Your task to perform on an android device: View the shopping cart on newegg.com. Add "dell xps" to the cart on newegg.com, then select checkout. Image 0: 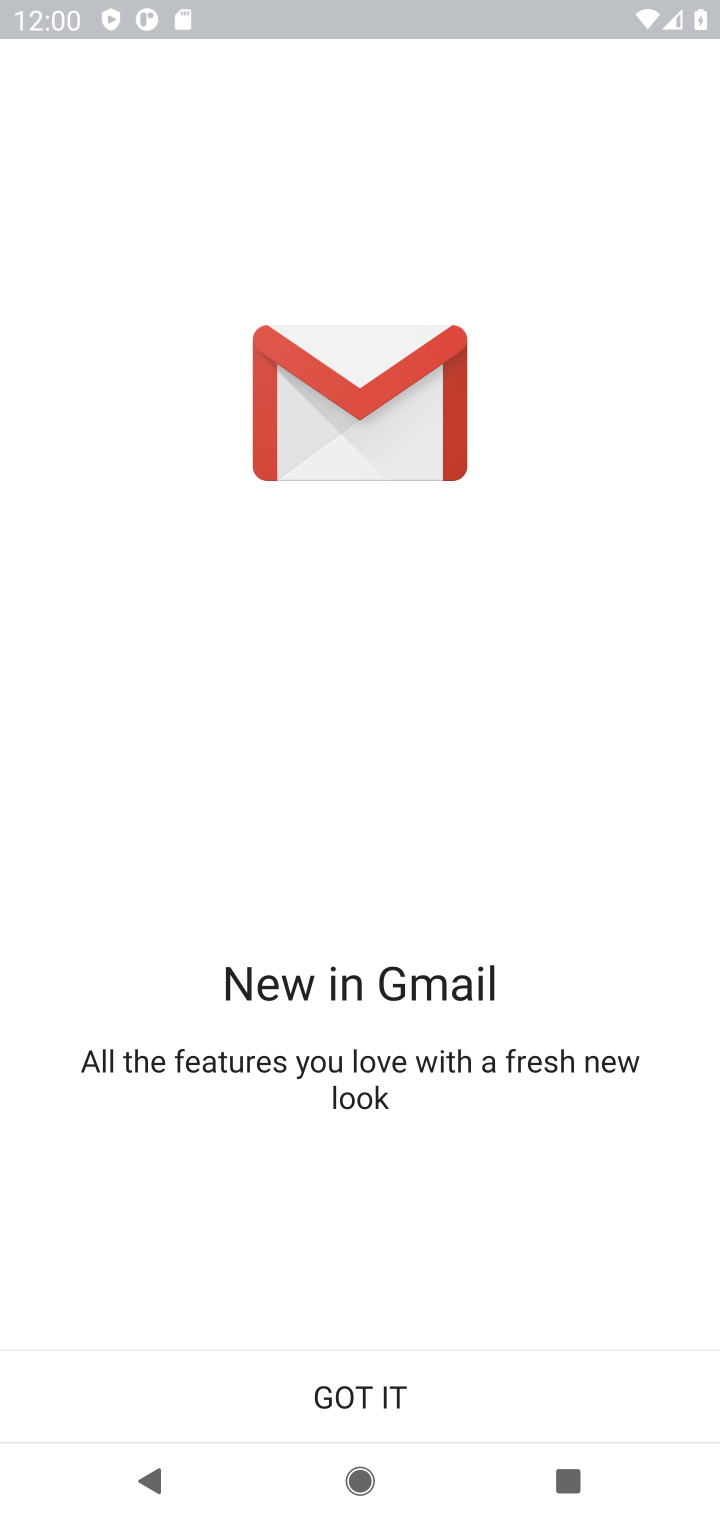
Step 0: press home button
Your task to perform on an android device: View the shopping cart on newegg.com. Add "dell xps" to the cart on newegg.com, then select checkout. Image 1: 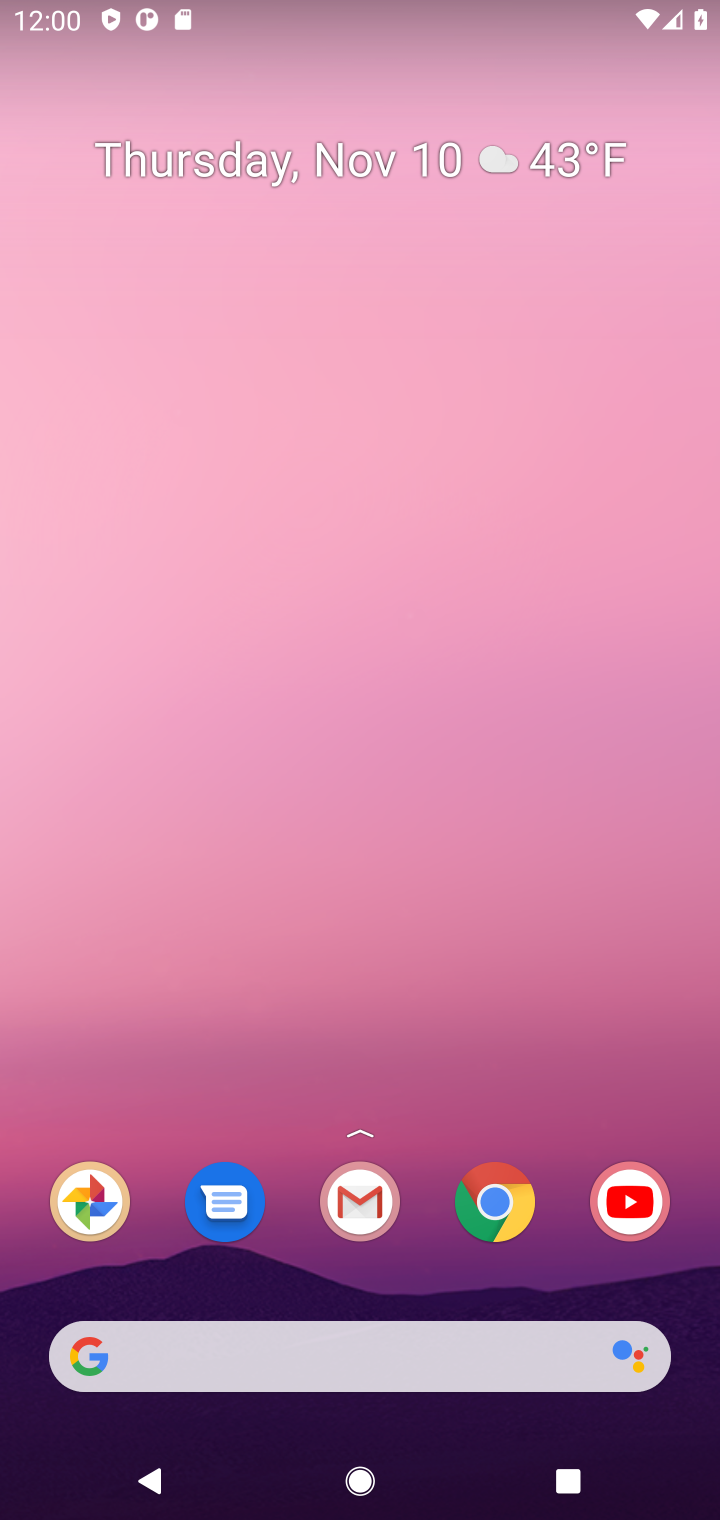
Step 1: click (493, 1204)
Your task to perform on an android device: View the shopping cart on newegg.com. Add "dell xps" to the cart on newegg.com, then select checkout. Image 2: 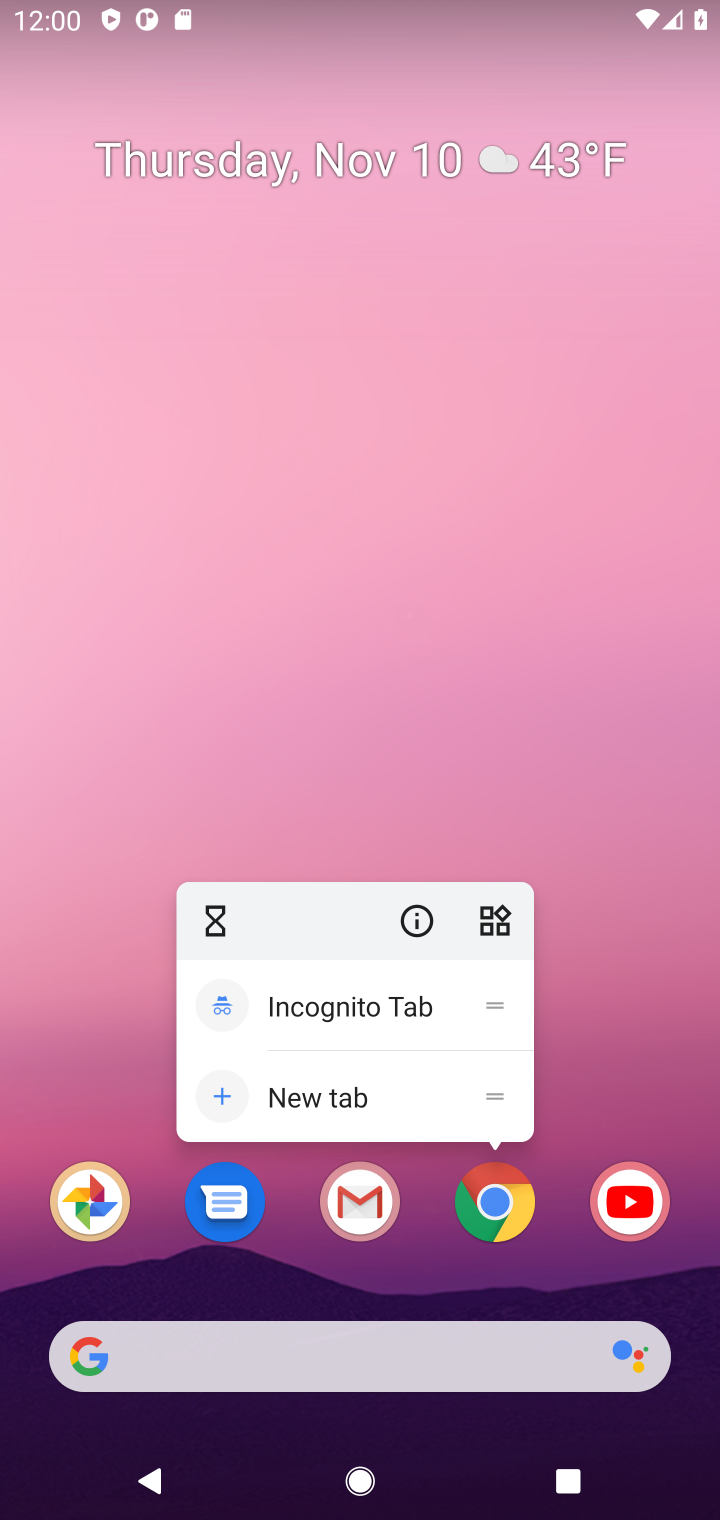
Step 2: click (493, 1204)
Your task to perform on an android device: View the shopping cart on newegg.com. Add "dell xps" to the cart on newegg.com, then select checkout. Image 3: 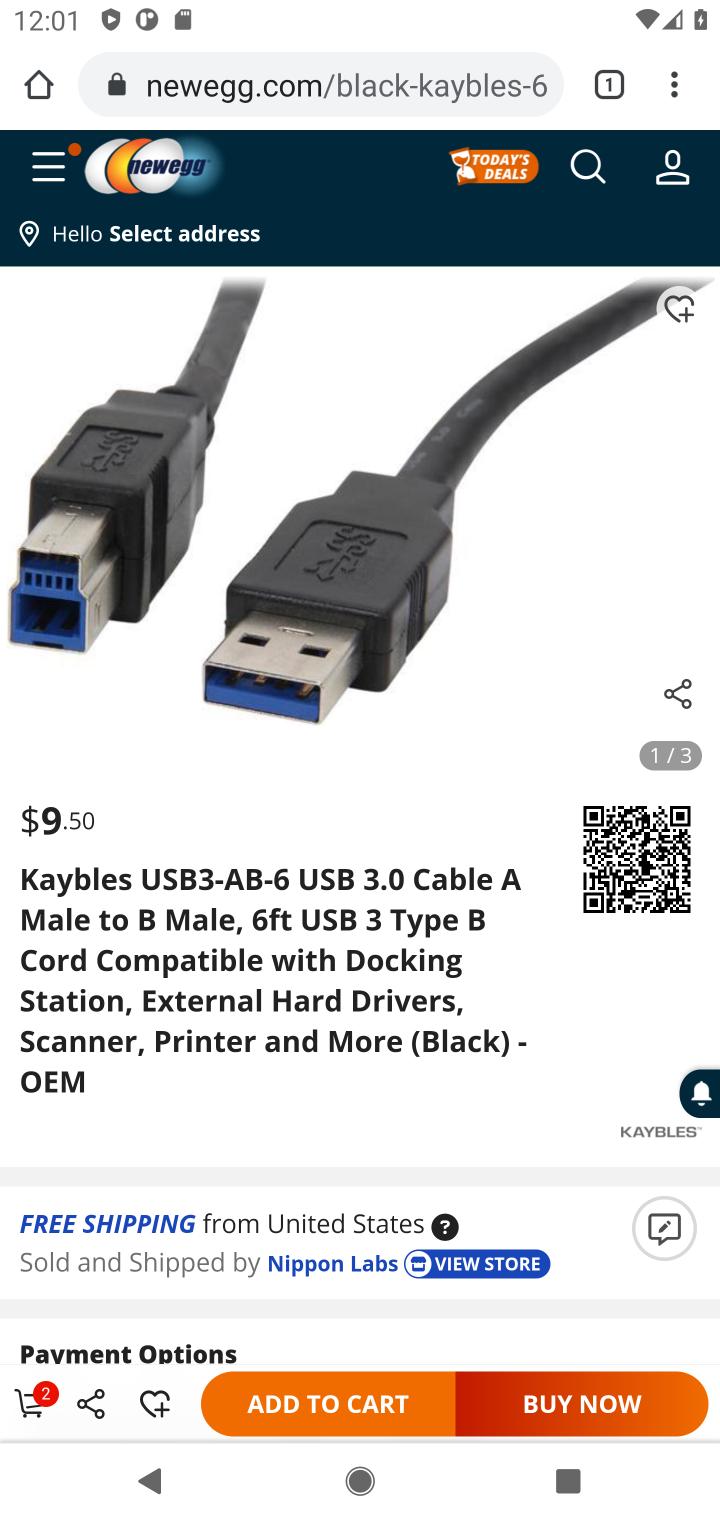
Step 3: click (598, 172)
Your task to perform on an android device: View the shopping cart on newegg.com. Add "dell xps" to the cart on newegg.com, then select checkout. Image 4: 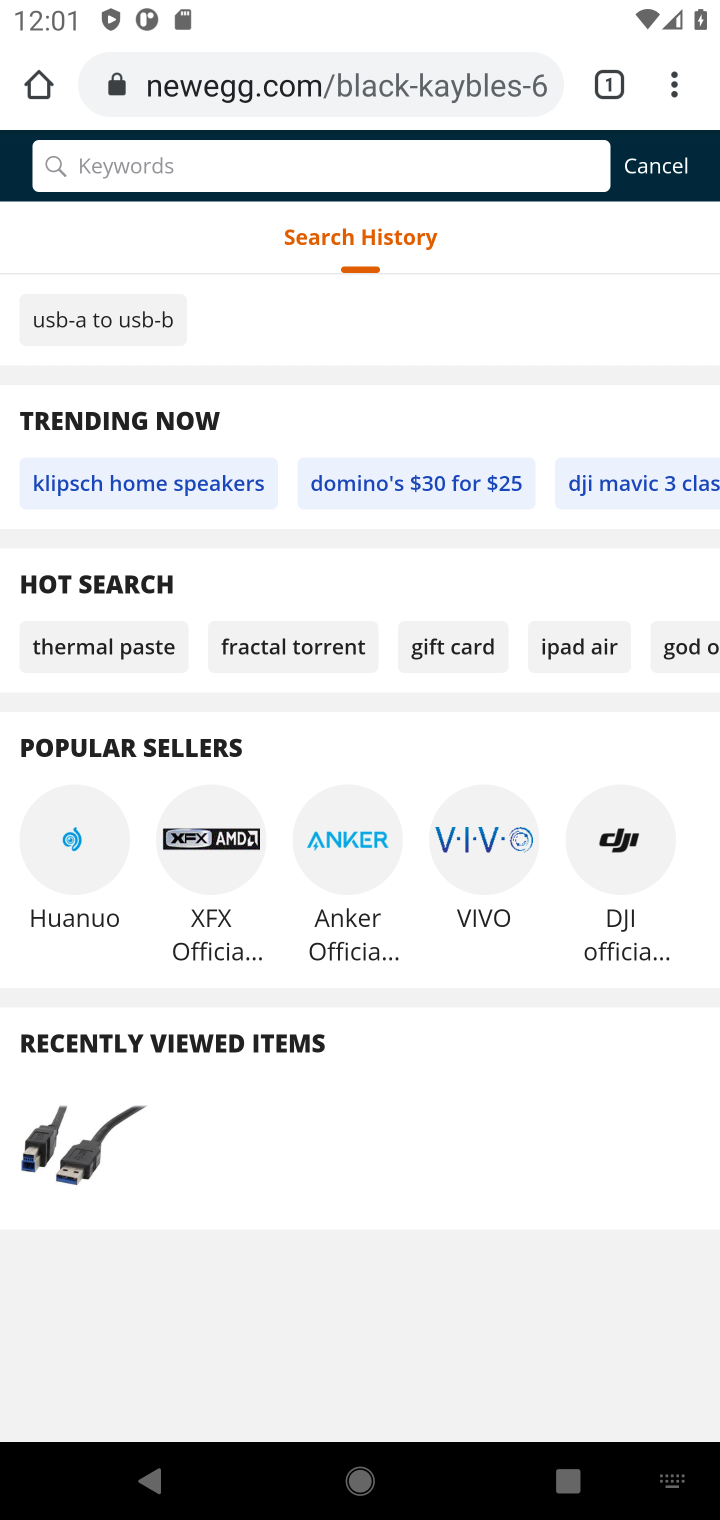
Step 4: type "dell xps"
Your task to perform on an android device: View the shopping cart on newegg.com. Add "dell xps" to the cart on newegg.com, then select checkout. Image 5: 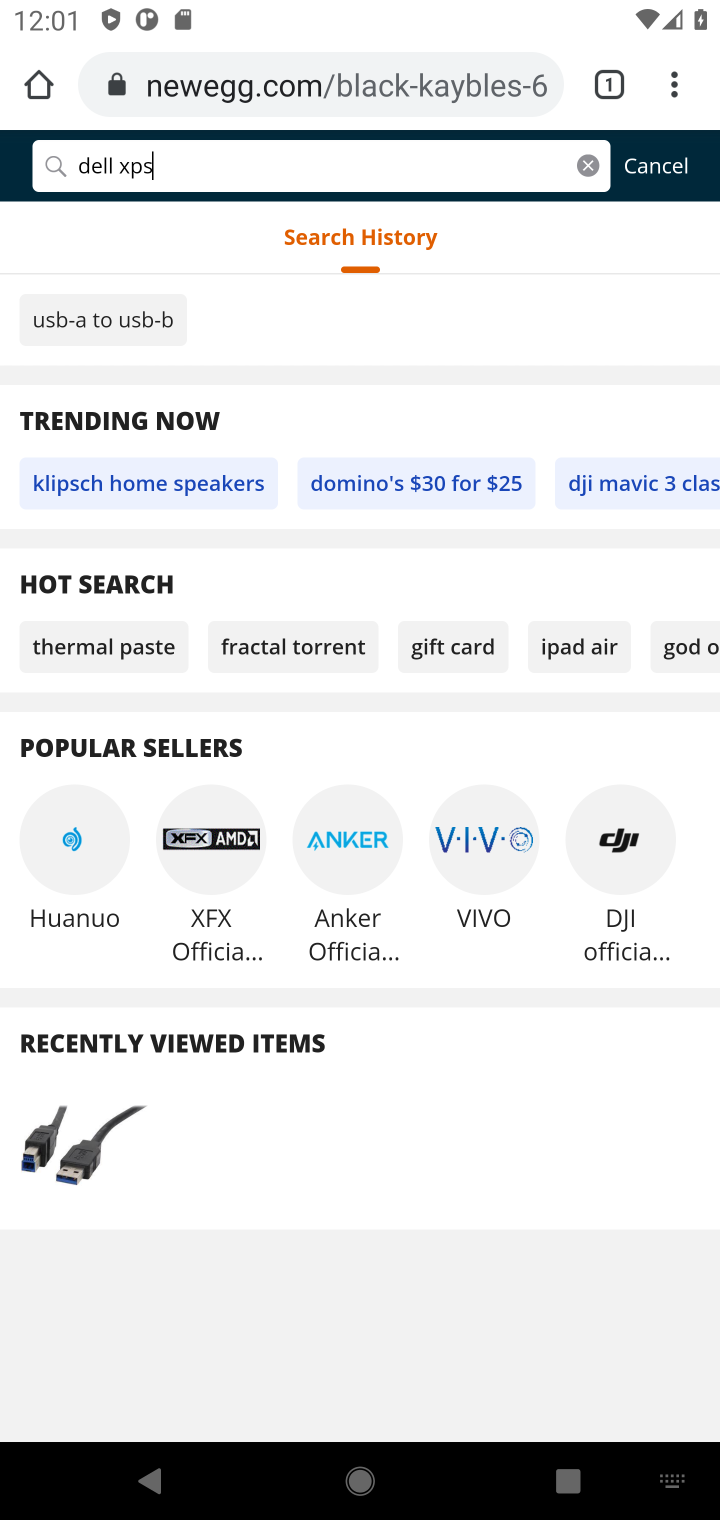
Step 5: press enter
Your task to perform on an android device: View the shopping cart on newegg.com. Add "dell xps" to the cart on newegg.com, then select checkout. Image 6: 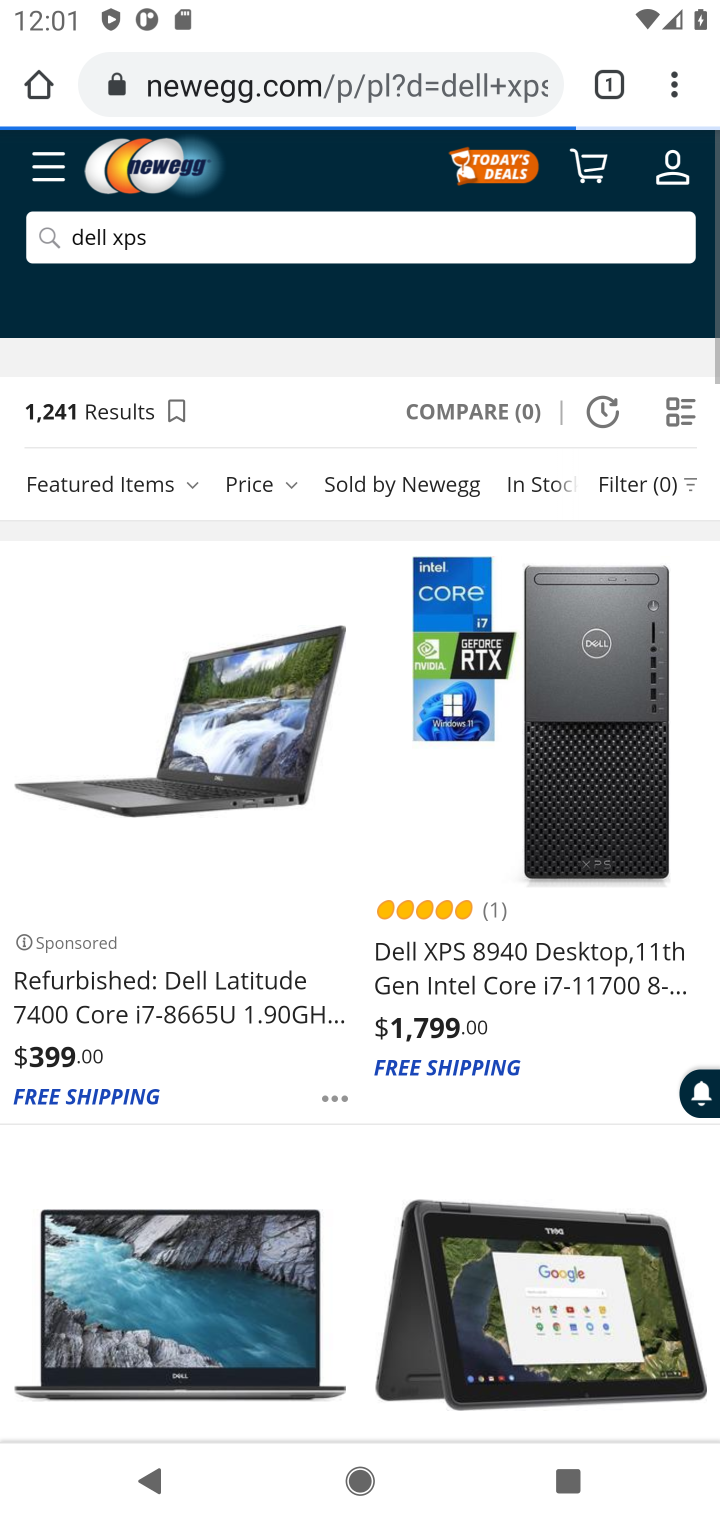
Step 6: click (111, 469)
Your task to perform on an android device: View the shopping cart on newegg.com. Add "dell xps" to the cart on newegg.com, then select checkout. Image 7: 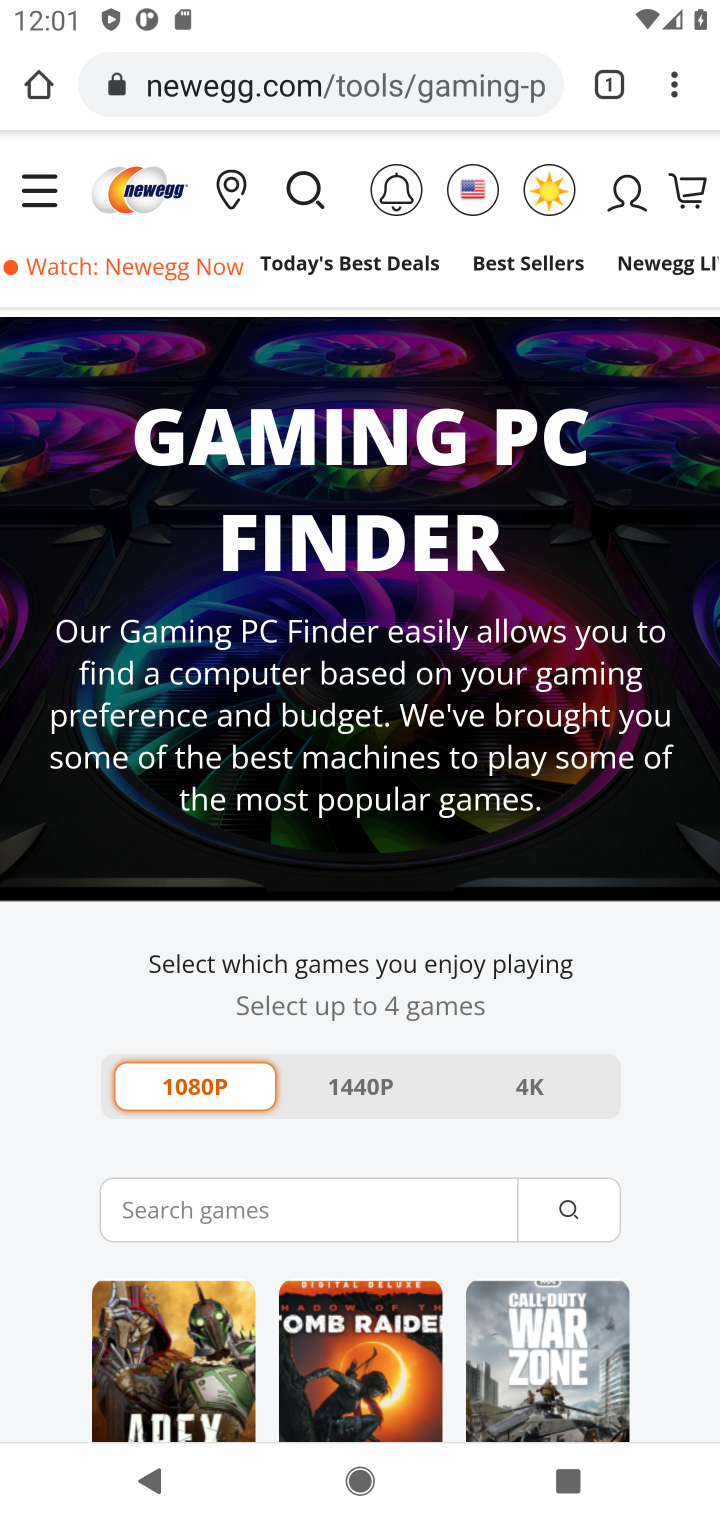
Step 7: click (304, 177)
Your task to perform on an android device: View the shopping cart on newegg.com. Add "dell xps" to the cart on newegg.com, then select checkout. Image 8: 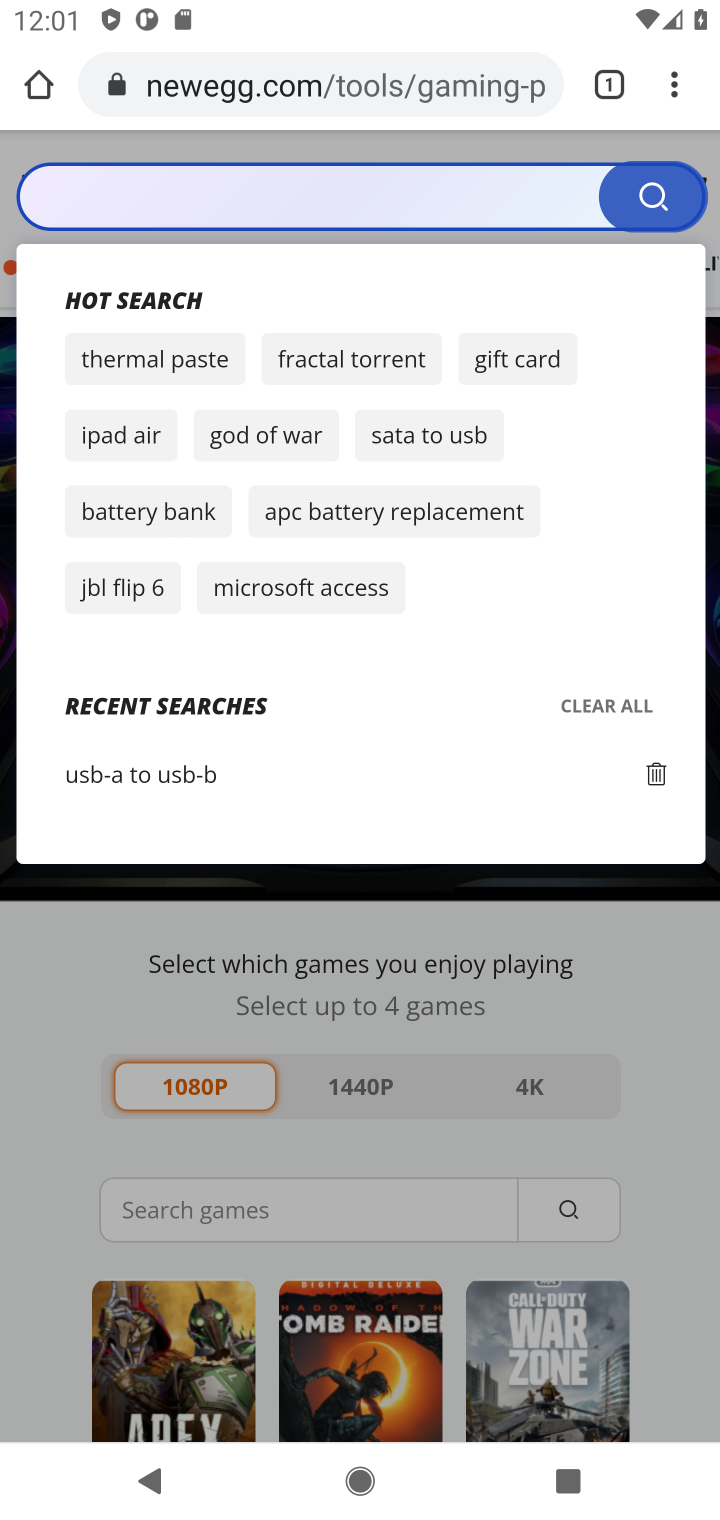
Step 8: click (242, 183)
Your task to perform on an android device: View the shopping cart on newegg.com. Add "dell xps" to the cart on newegg.com, then select checkout. Image 9: 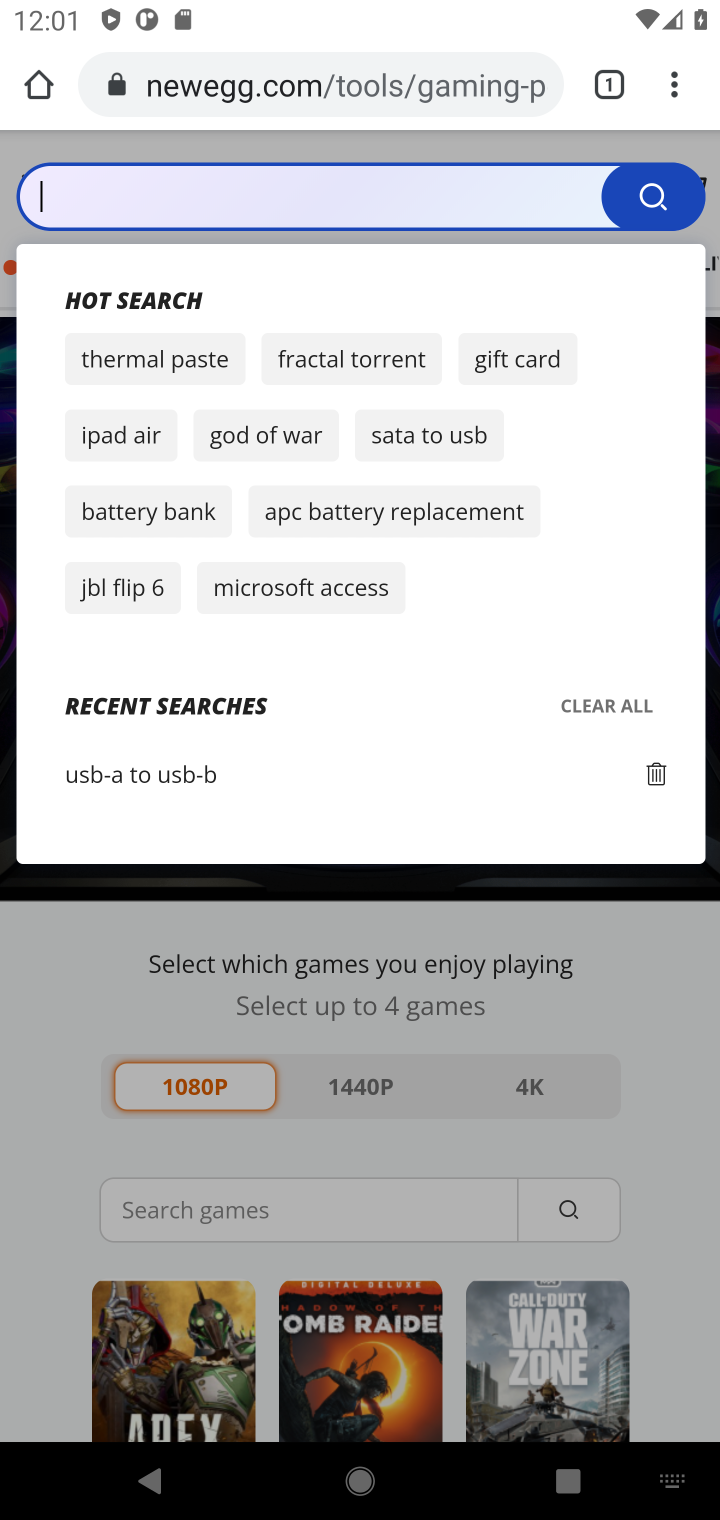
Step 9: type "dell xps"
Your task to perform on an android device: View the shopping cart on newegg.com. Add "dell xps" to the cart on newegg.com, then select checkout. Image 10: 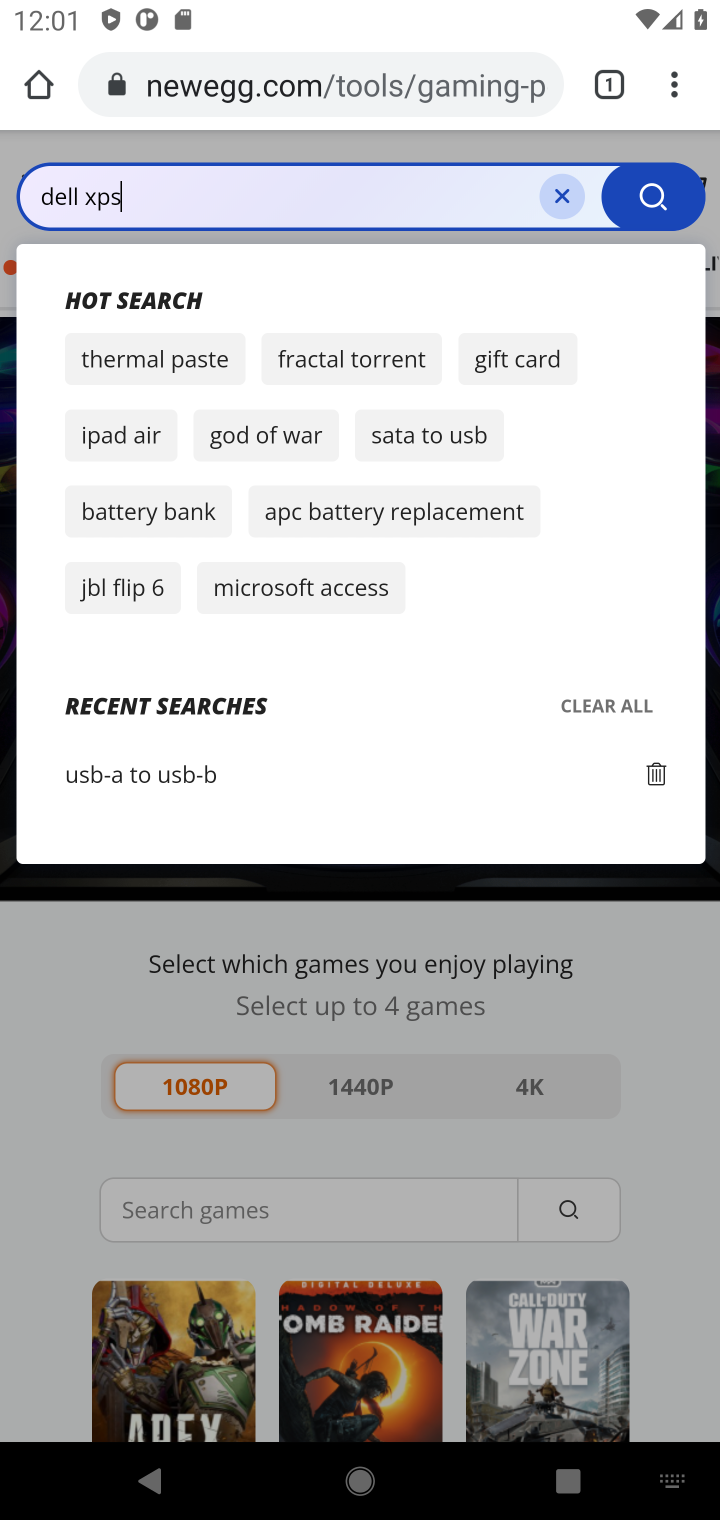
Step 10: press enter
Your task to perform on an android device: View the shopping cart on newegg.com. Add "dell xps" to the cart on newegg.com, then select checkout. Image 11: 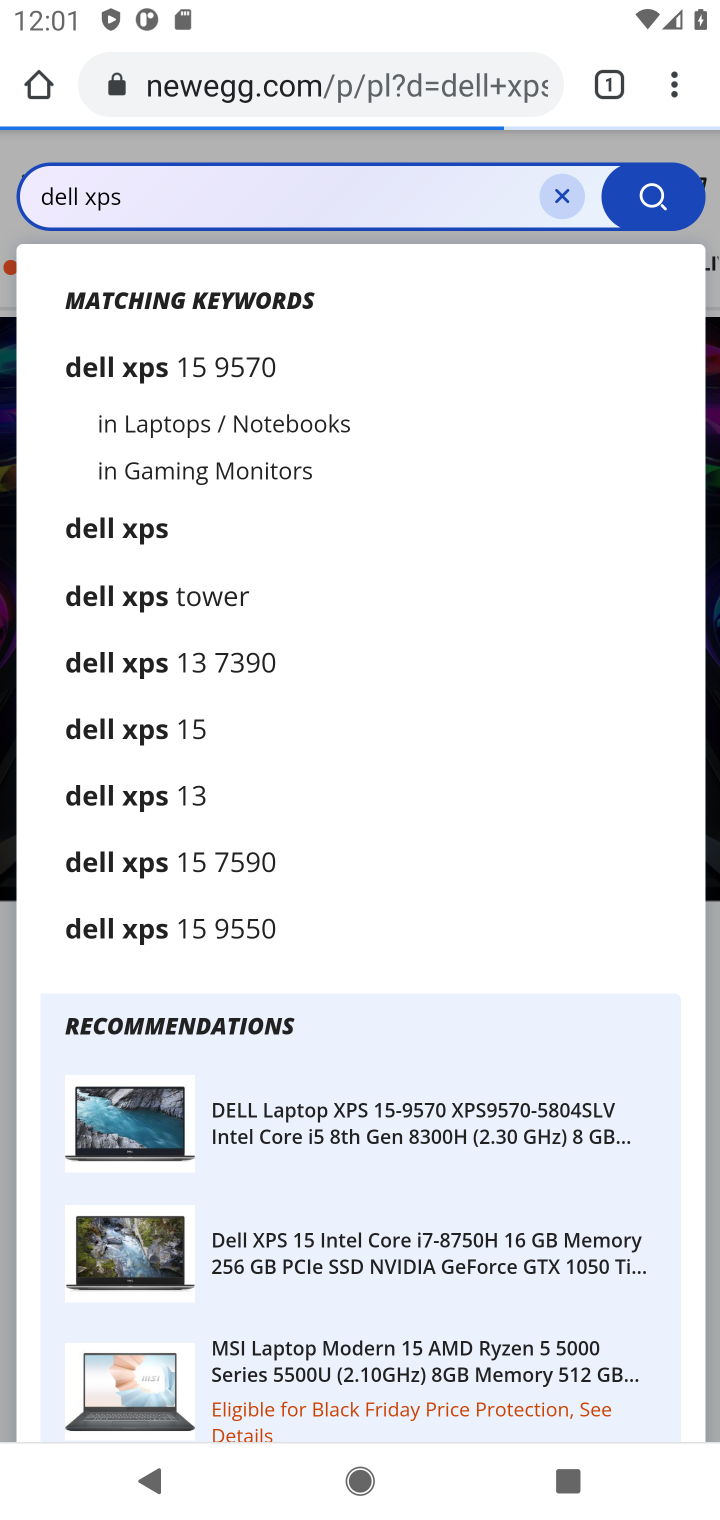
Step 11: click (148, 525)
Your task to perform on an android device: View the shopping cart on newegg.com. Add "dell xps" to the cart on newegg.com, then select checkout. Image 12: 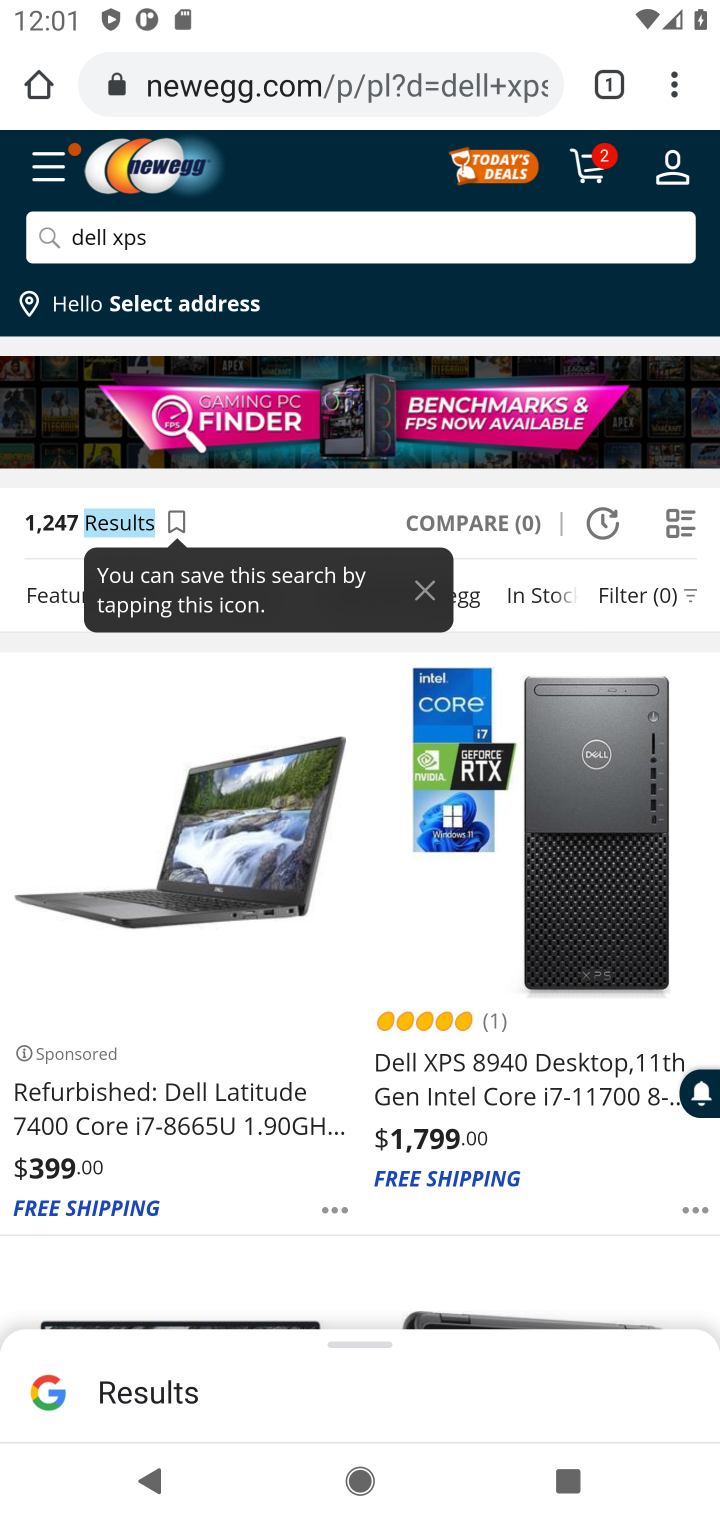
Step 12: drag from (559, 797) to (606, 533)
Your task to perform on an android device: View the shopping cart on newegg.com. Add "dell xps" to the cart on newegg.com, then select checkout. Image 13: 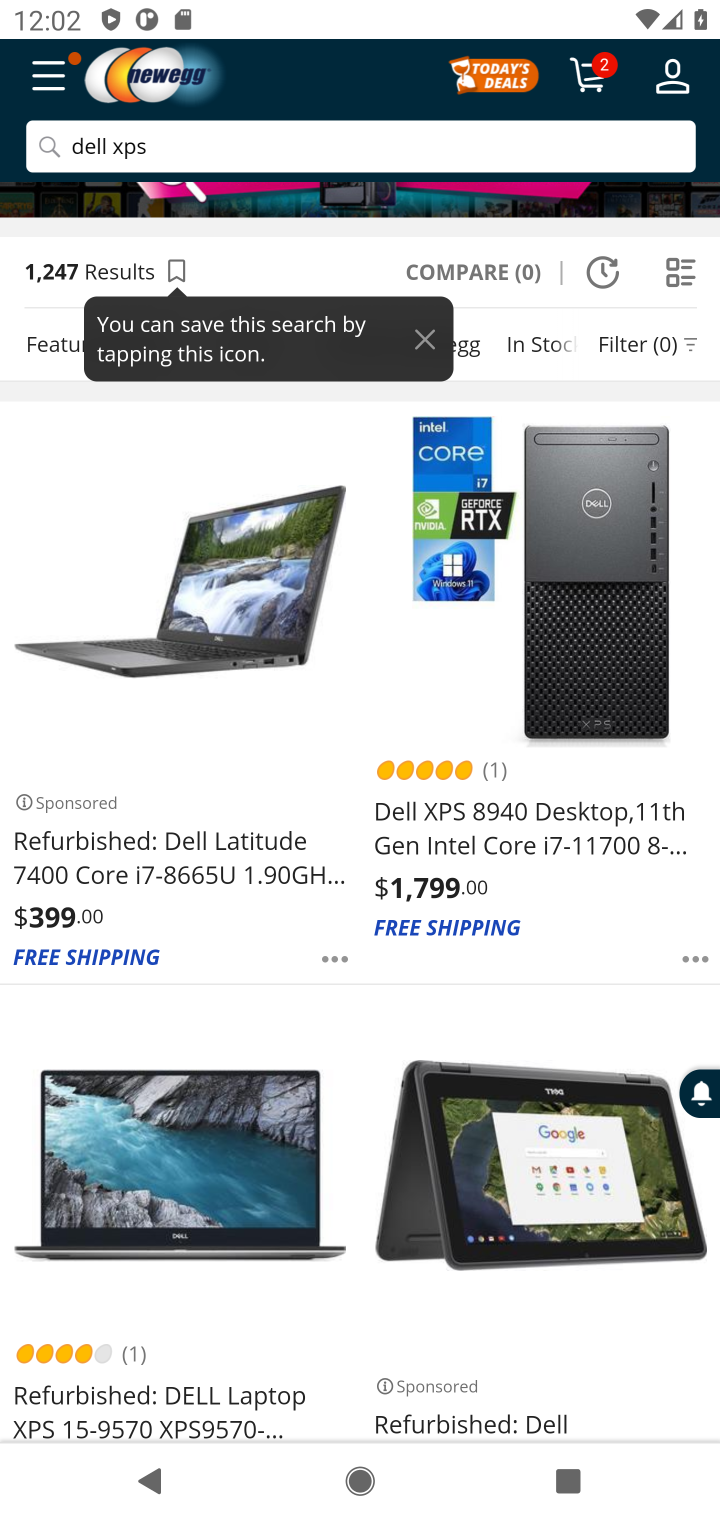
Step 13: drag from (569, 1122) to (561, 547)
Your task to perform on an android device: View the shopping cart on newegg.com. Add "dell xps" to the cart on newegg.com, then select checkout. Image 14: 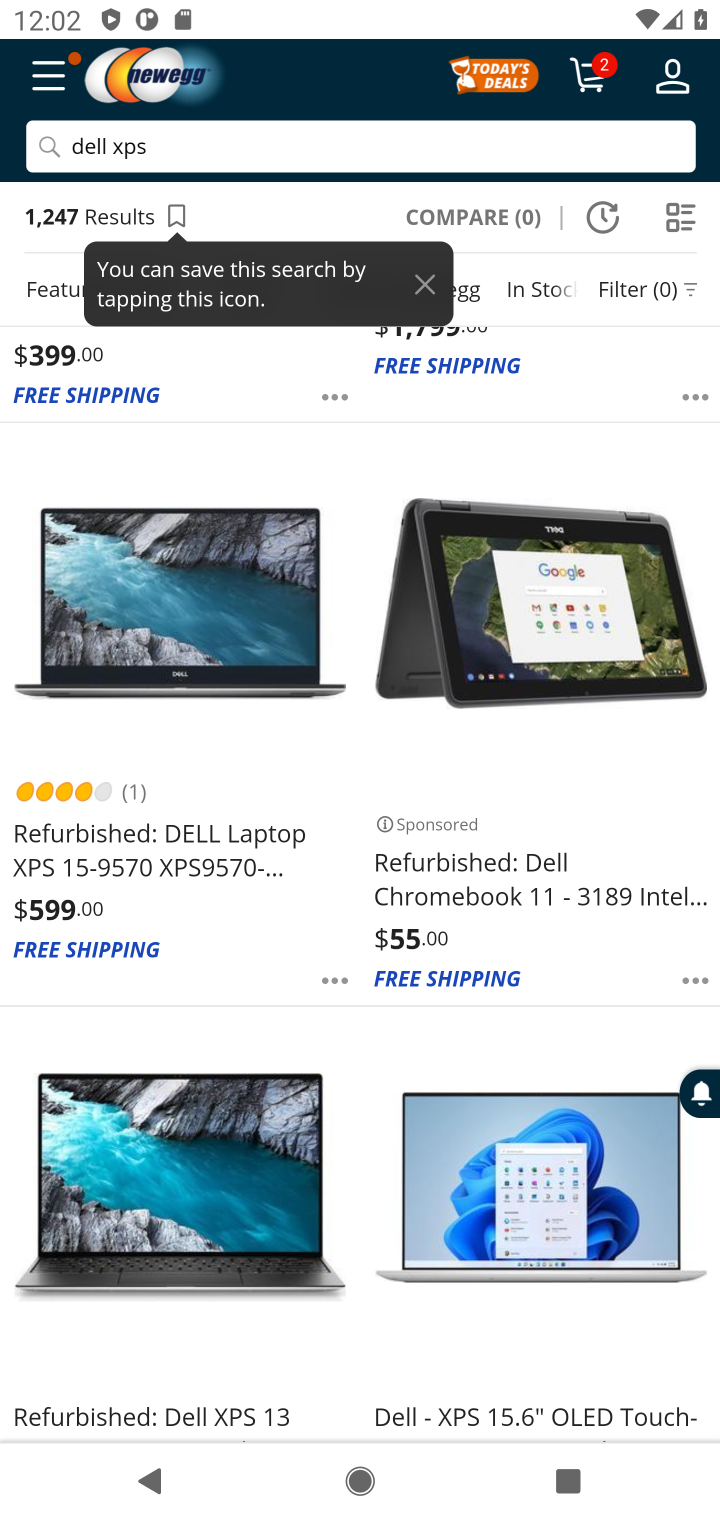
Step 14: click (530, 1197)
Your task to perform on an android device: View the shopping cart on newegg.com. Add "dell xps" to the cart on newegg.com, then select checkout. Image 15: 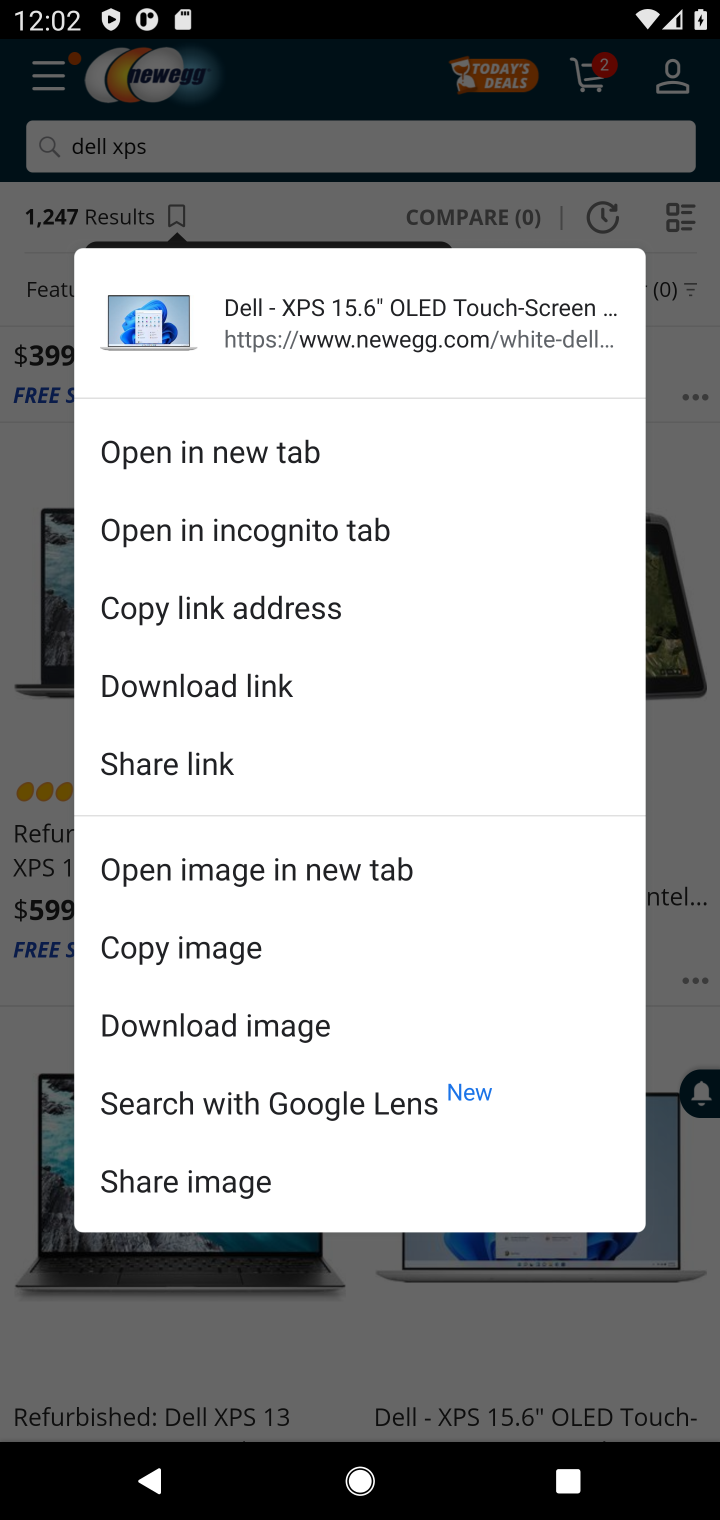
Step 15: click (513, 1290)
Your task to perform on an android device: View the shopping cart on newegg.com. Add "dell xps" to the cart on newegg.com, then select checkout. Image 16: 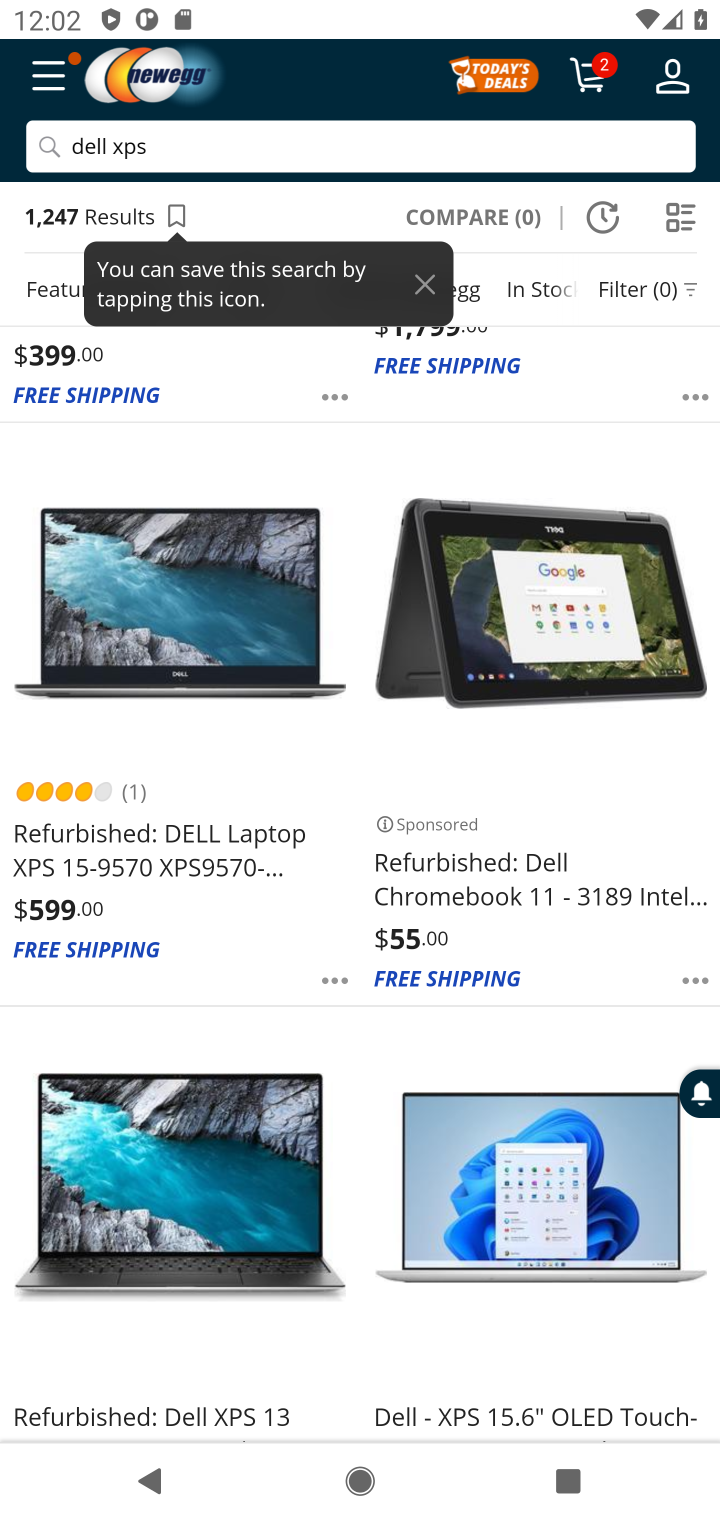
Step 16: click (559, 1229)
Your task to perform on an android device: View the shopping cart on newegg.com. Add "dell xps" to the cart on newegg.com, then select checkout. Image 17: 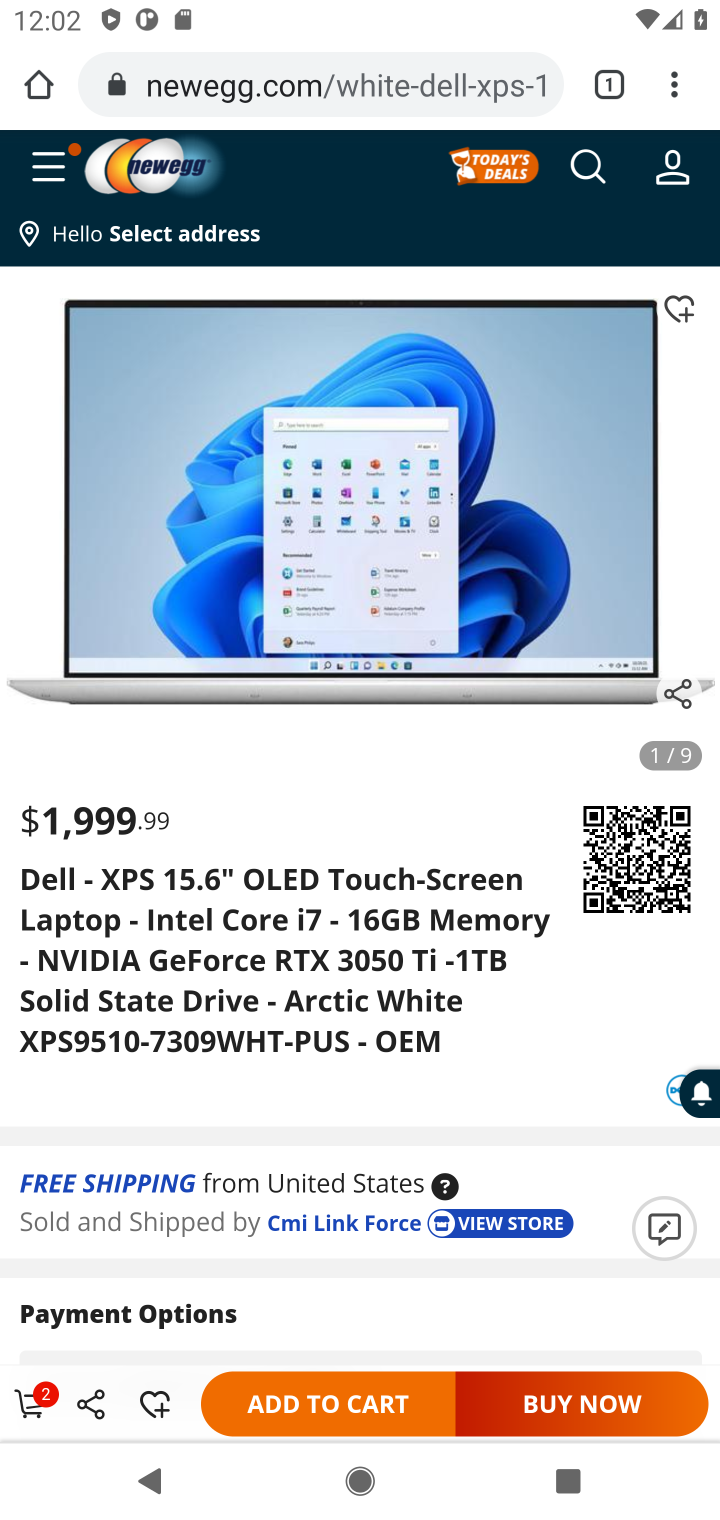
Step 17: click (330, 1396)
Your task to perform on an android device: View the shopping cart on newegg.com. Add "dell xps" to the cart on newegg.com, then select checkout. Image 18: 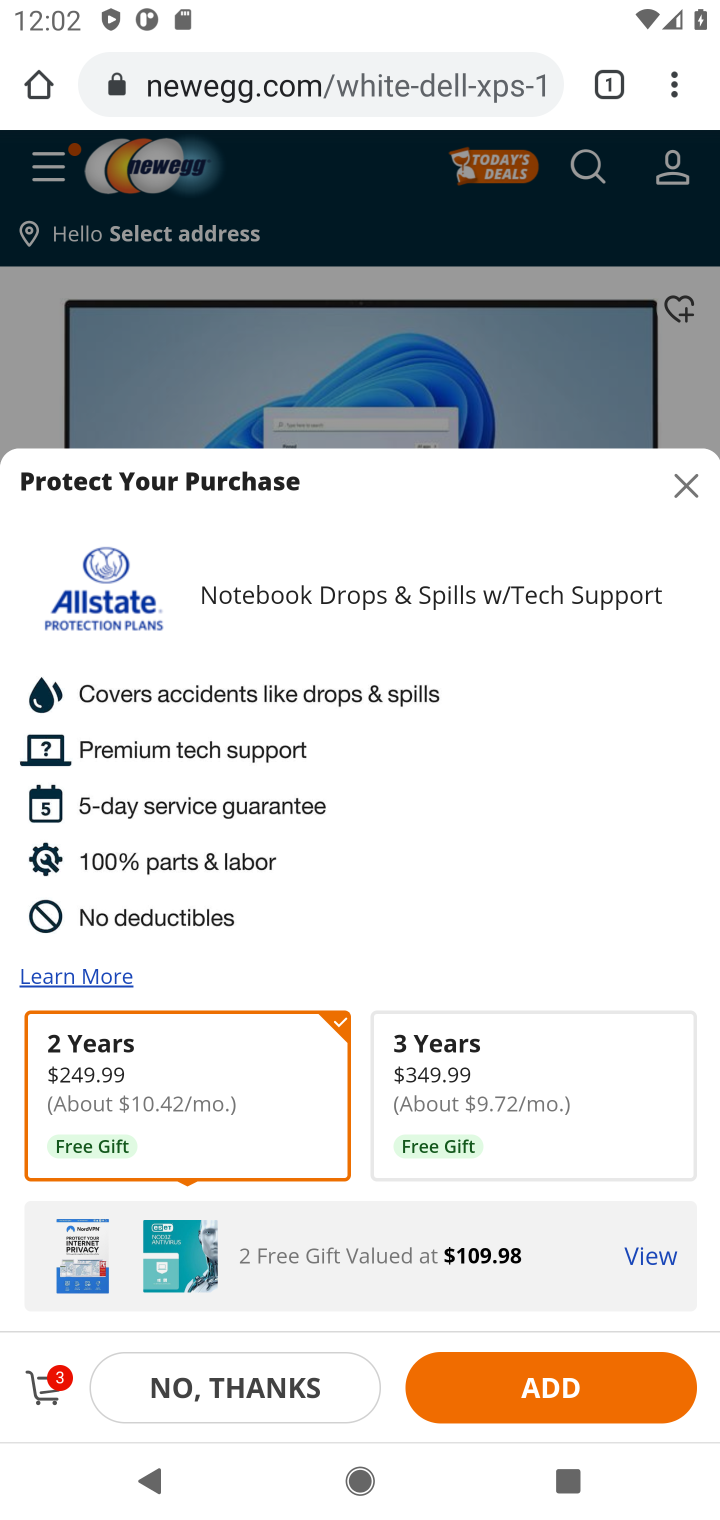
Step 18: click (685, 479)
Your task to perform on an android device: View the shopping cart on newegg.com. Add "dell xps" to the cart on newegg.com, then select checkout. Image 19: 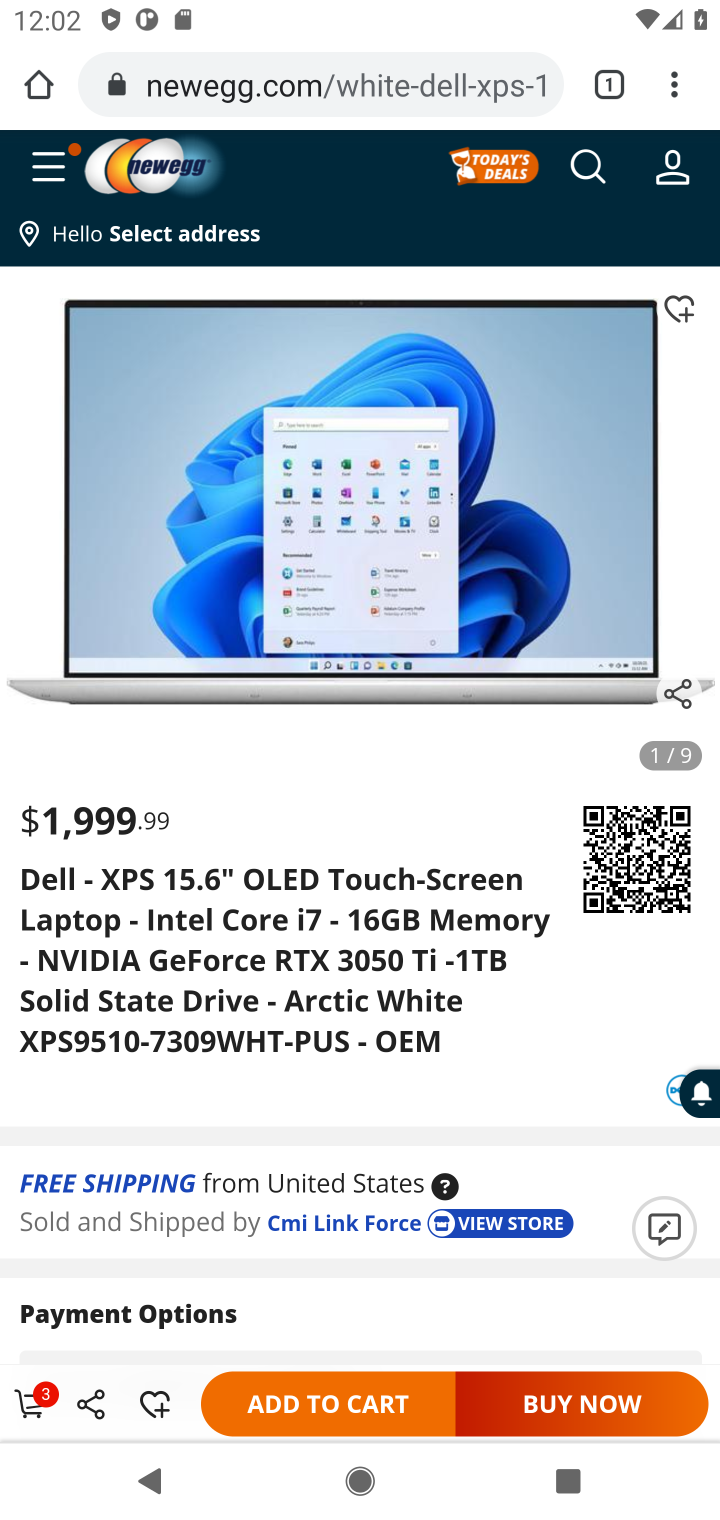
Step 19: click (30, 1403)
Your task to perform on an android device: View the shopping cart on newegg.com. Add "dell xps" to the cart on newegg.com, then select checkout. Image 20: 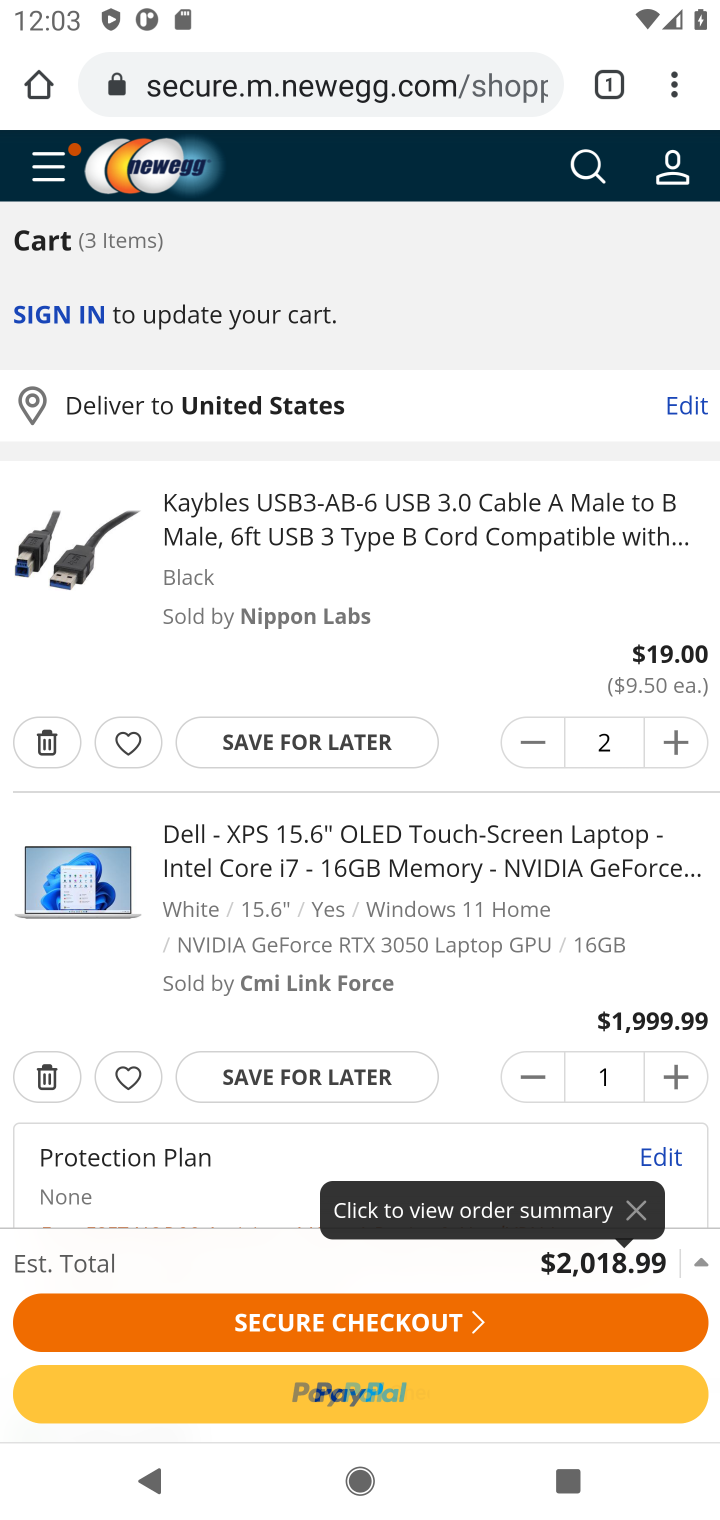
Step 20: click (389, 1322)
Your task to perform on an android device: View the shopping cart on newegg.com. Add "dell xps" to the cart on newegg.com, then select checkout. Image 21: 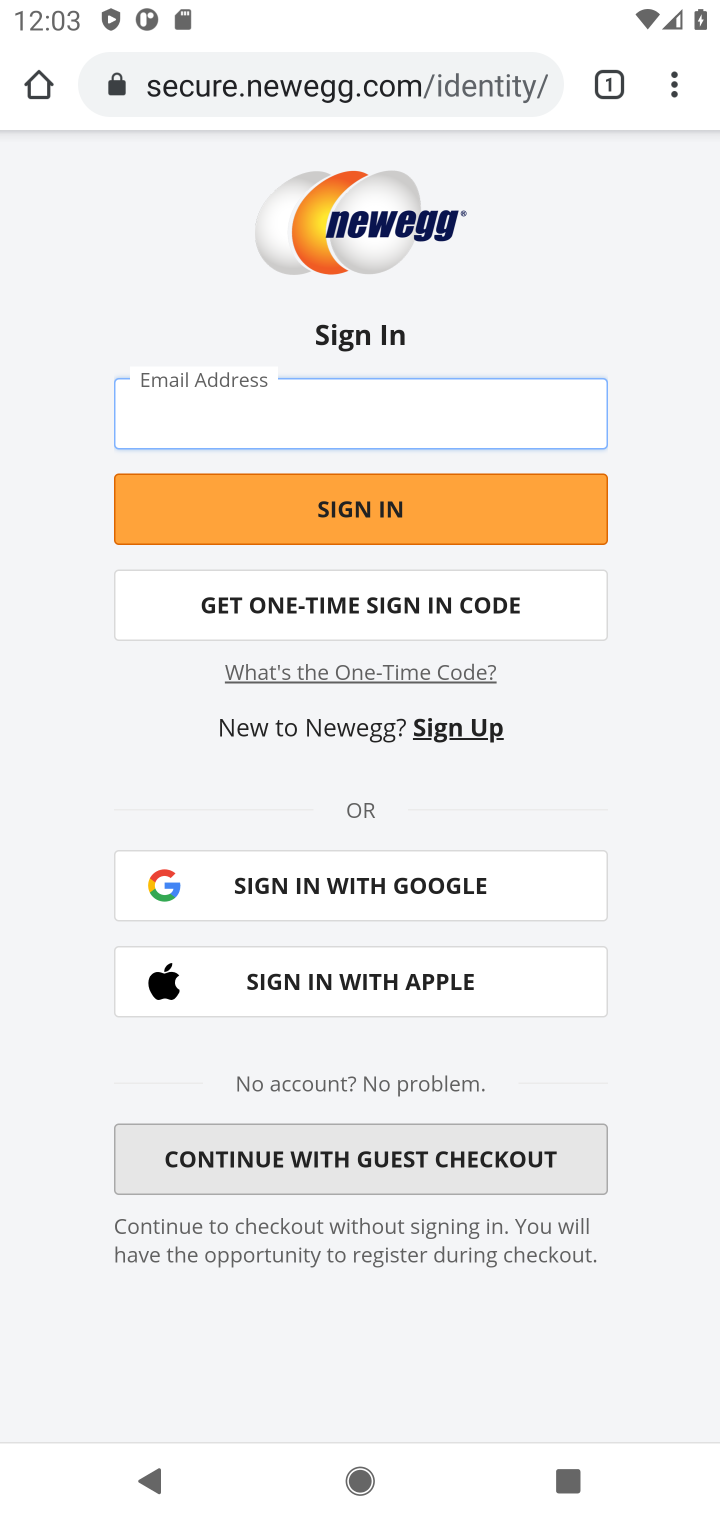
Step 21: task complete